Your task to perform on an android device: turn off picture-in-picture Image 0: 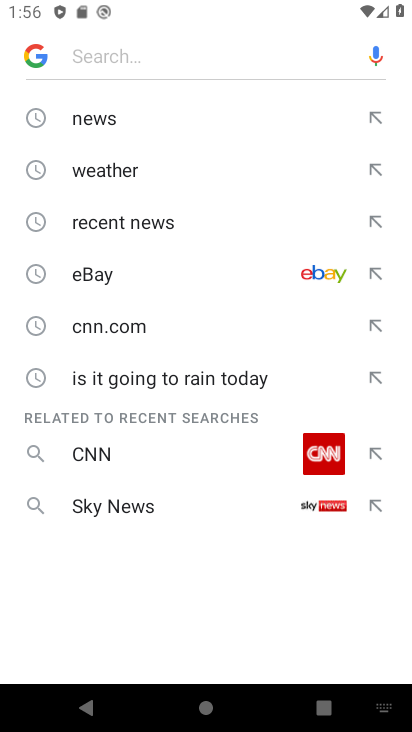
Step 0: press back button
Your task to perform on an android device: turn off picture-in-picture Image 1: 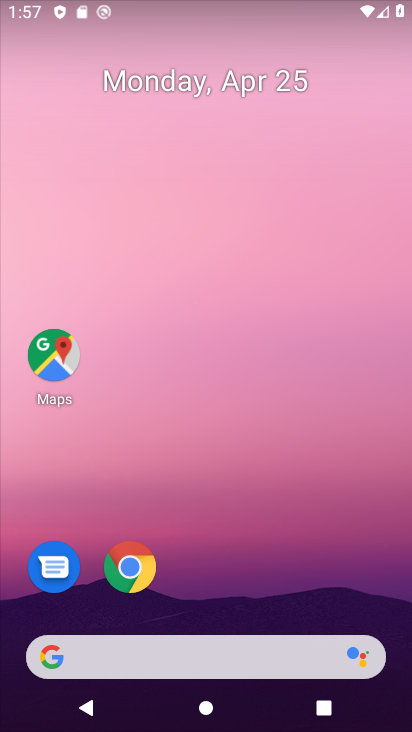
Step 1: click (120, 564)
Your task to perform on an android device: turn off picture-in-picture Image 2: 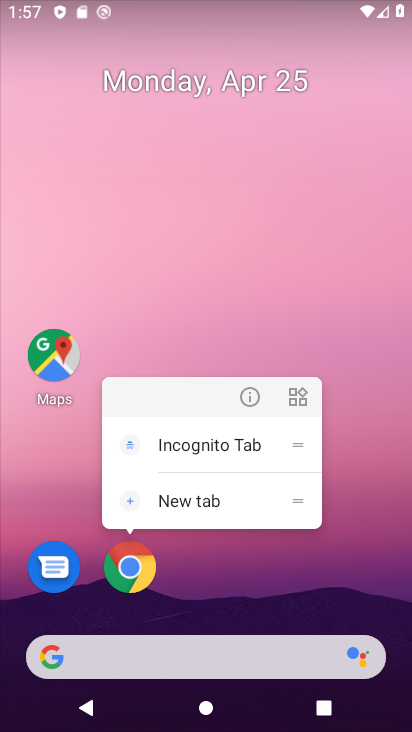
Step 2: click (247, 403)
Your task to perform on an android device: turn off picture-in-picture Image 3: 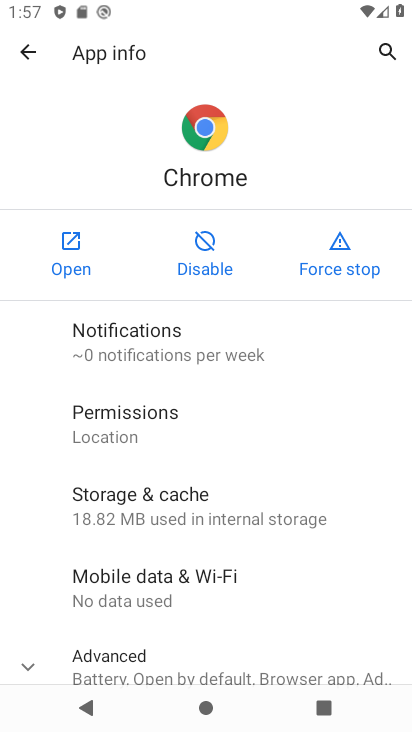
Step 3: drag from (239, 643) to (264, 230)
Your task to perform on an android device: turn off picture-in-picture Image 4: 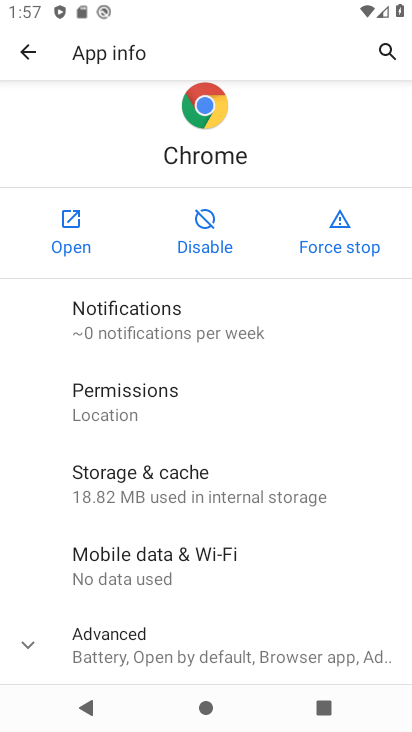
Step 4: click (225, 653)
Your task to perform on an android device: turn off picture-in-picture Image 5: 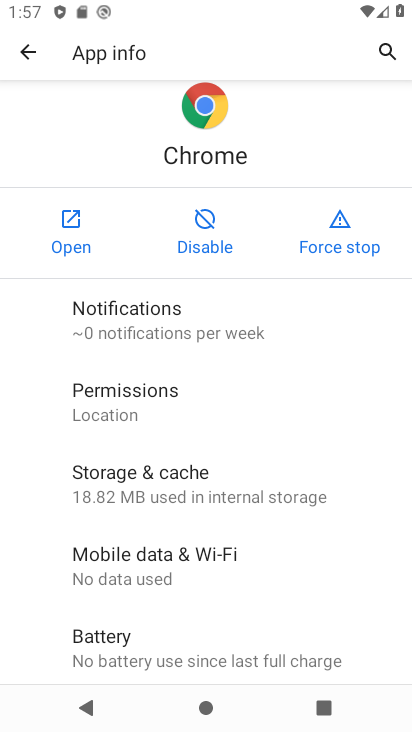
Step 5: drag from (225, 653) to (232, 298)
Your task to perform on an android device: turn off picture-in-picture Image 6: 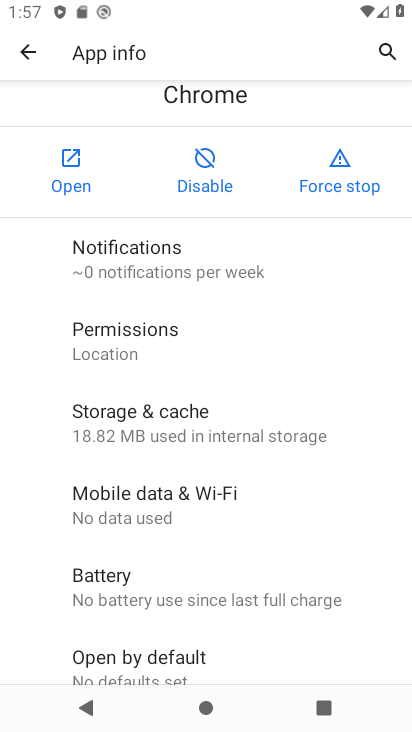
Step 6: drag from (206, 623) to (189, 221)
Your task to perform on an android device: turn off picture-in-picture Image 7: 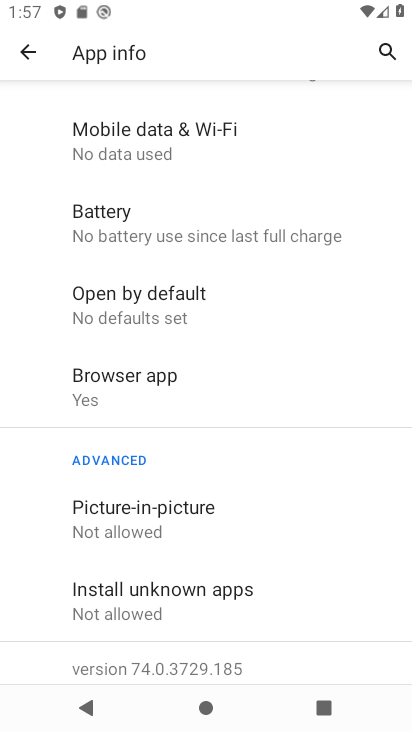
Step 7: click (185, 509)
Your task to perform on an android device: turn off picture-in-picture Image 8: 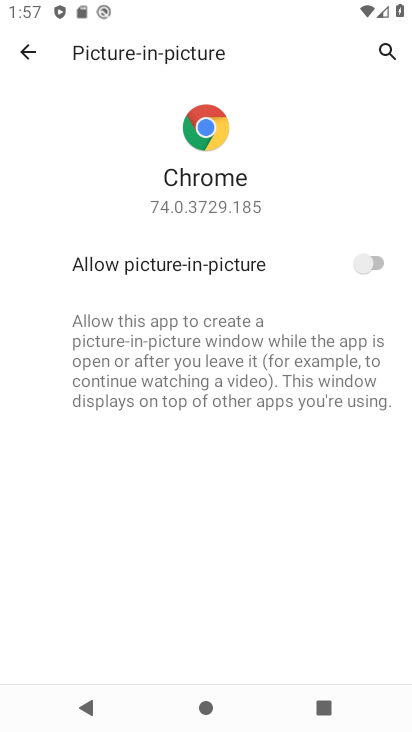
Step 8: task complete